Your task to perform on an android device: open chrome privacy settings Image 0: 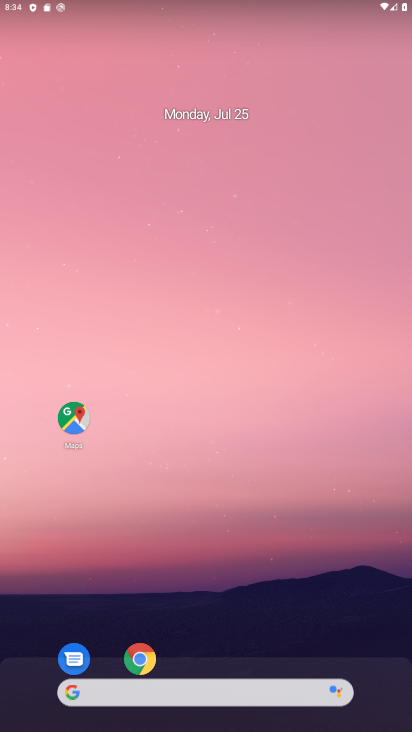
Step 0: click (149, 662)
Your task to perform on an android device: open chrome privacy settings Image 1: 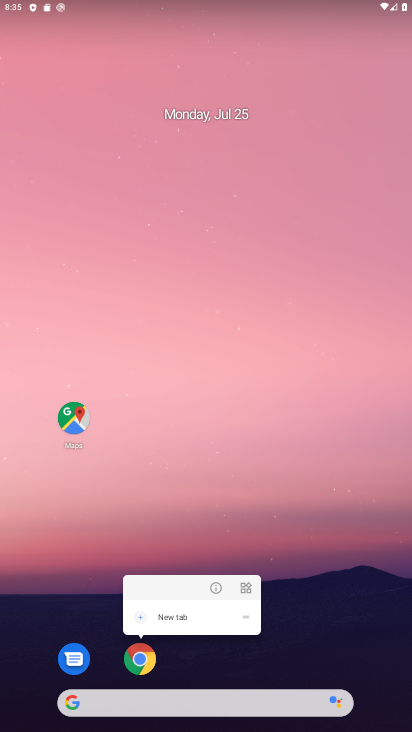
Step 1: click (149, 662)
Your task to perform on an android device: open chrome privacy settings Image 2: 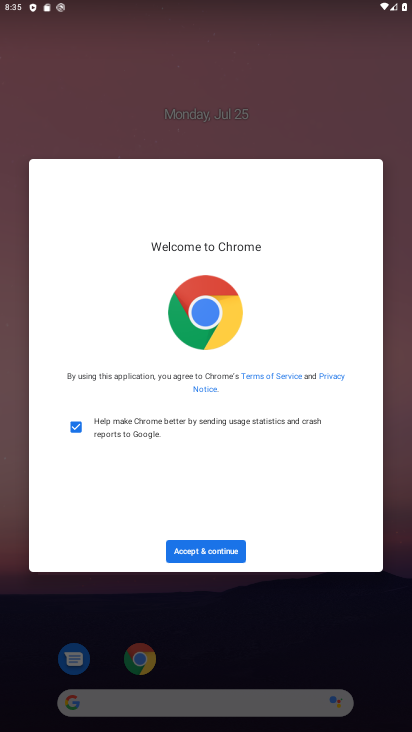
Step 2: click (234, 548)
Your task to perform on an android device: open chrome privacy settings Image 3: 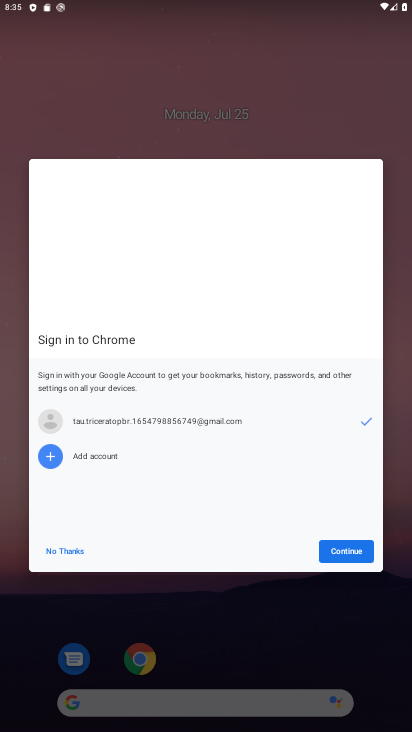
Step 3: click (344, 543)
Your task to perform on an android device: open chrome privacy settings Image 4: 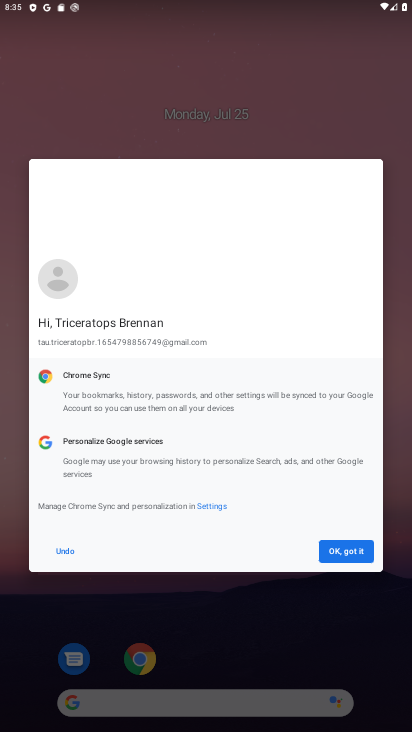
Step 4: click (344, 552)
Your task to perform on an android device: open chrome privacy settings Image 5: 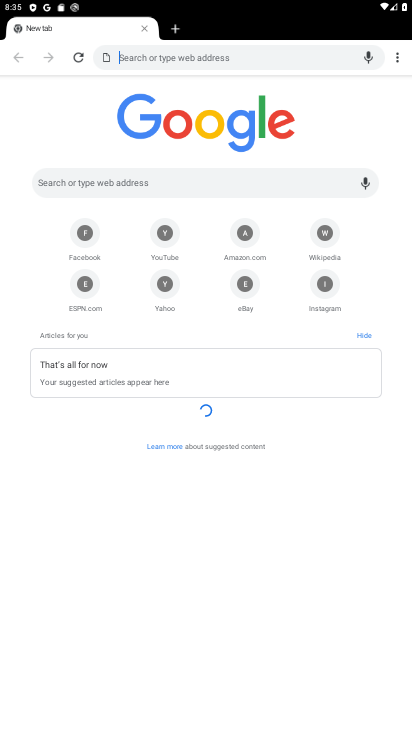
Step 5: click (392, 68)
Your task to perform on an android device: open chrome privacy settings Image 6: 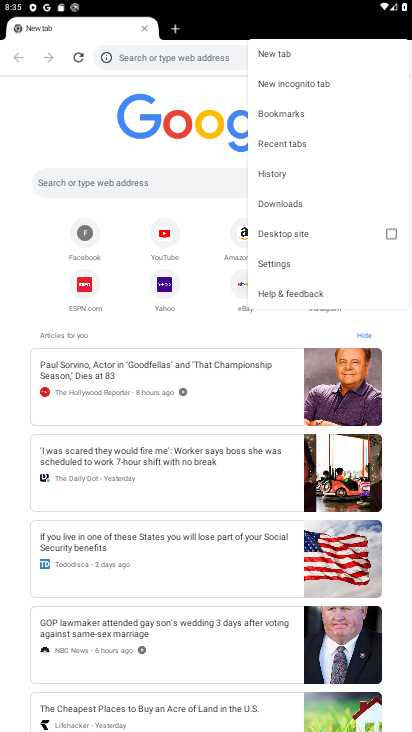
Step 6: click (307, 269)
Your task to perform on an android device: open chrome privacy settings Image 7: 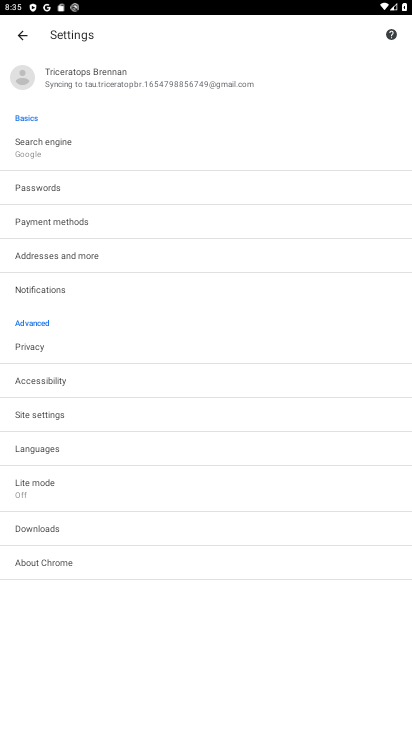
Step 7: click (125, 347)
Your task to perform on an android device: open chrome privacy settings Image 8: 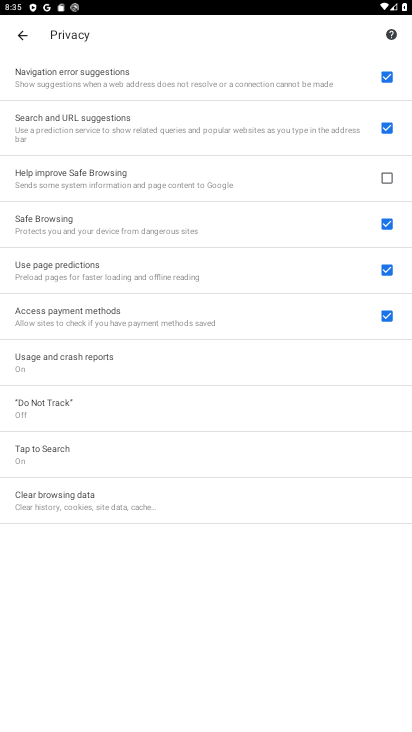
Step 8: task complete